Your task to perform on an android device: turn off location Image 0: 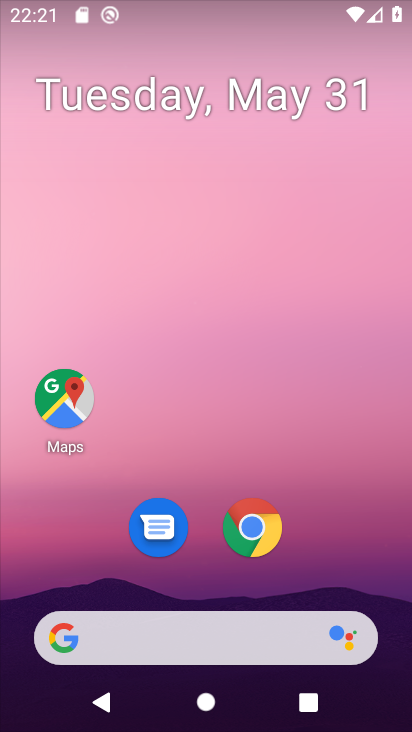
Step 0: drag from (324, 392) to (231, 35)
Your task to perform on an android device: turn off location Image 1: 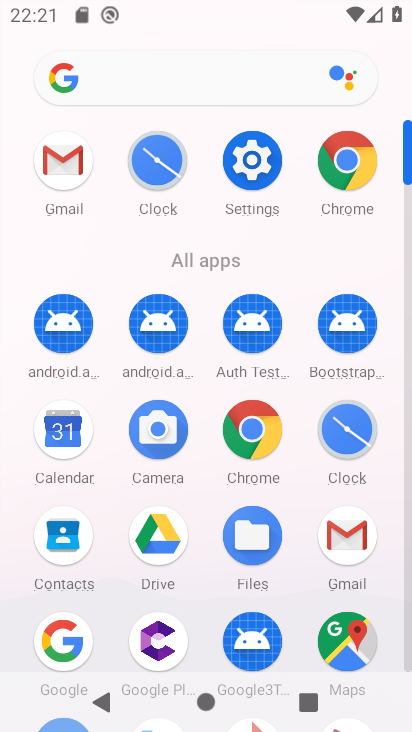
Step 1: click (250, 162)
Your task to perform on an android device: turn off location Image 2: 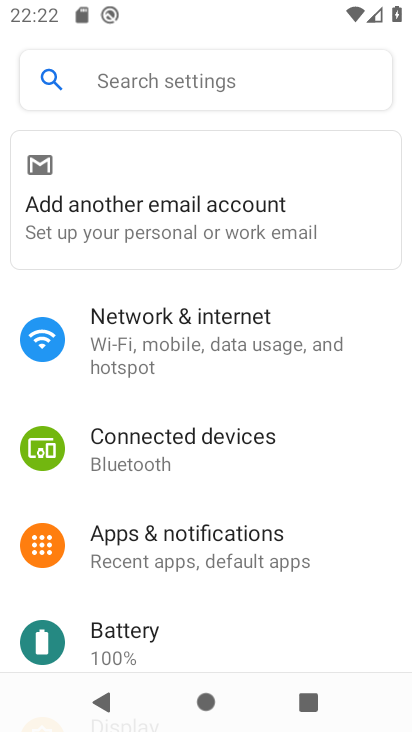
Step 2: drag from (229, 606) to (258, 300)
Your task to perform on an android device: turn off location Image 3: 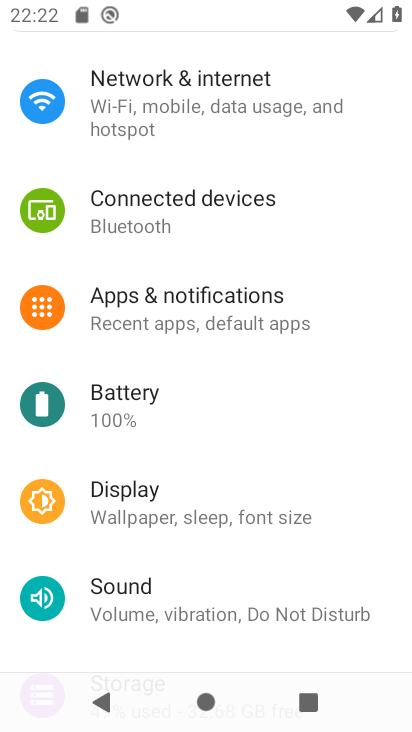
Step 3: drag from (252, 473) to (219, 133)
Your task to perform on an android device: turn off location Image 4: 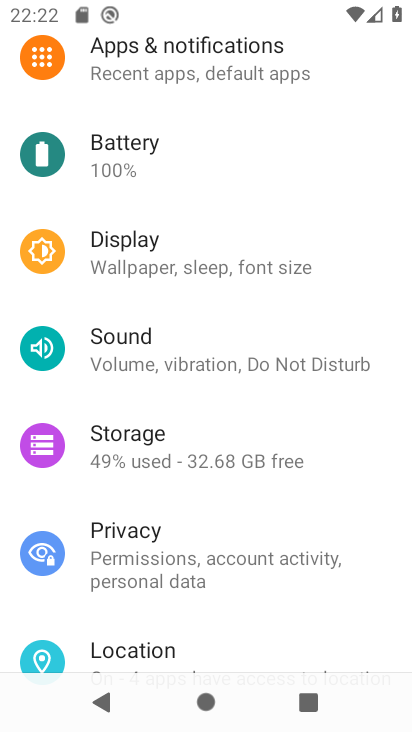
Step 4: drag from (252, 590) to (220, 186)
Your task to perform on an android device: turn off location Image 5: 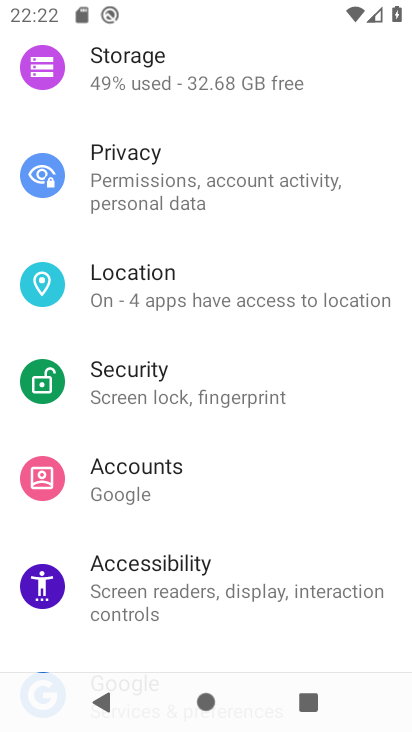
Step 5: click (192, 275)
Your task to perform on an android device: turn off location Image 6: 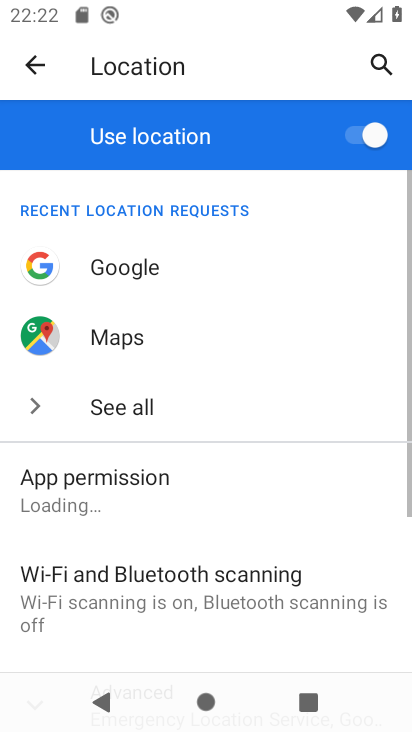
Step 6: click (370, 134)
Your task to perform on an android device: turn off location Image 7: 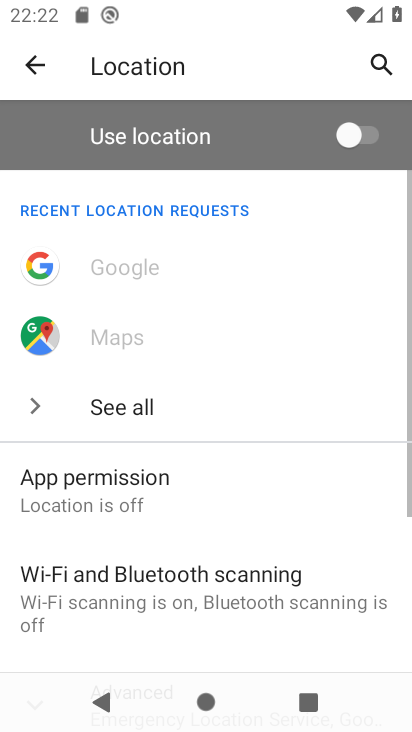
Step 7: task complete